Your task to perform on an android device: Open maps Image 0: 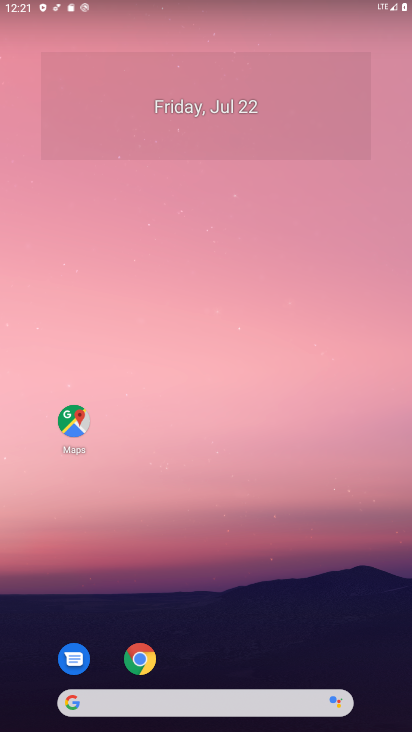
Step 0: click (65, 442)
Your task to perform on an android device: Open maps Image 1: 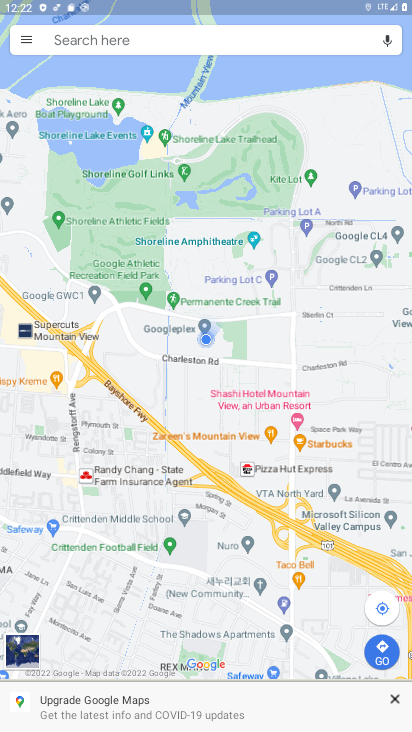
Step 1: task complete